Your task to perform on an android device: set the timer Image 0: 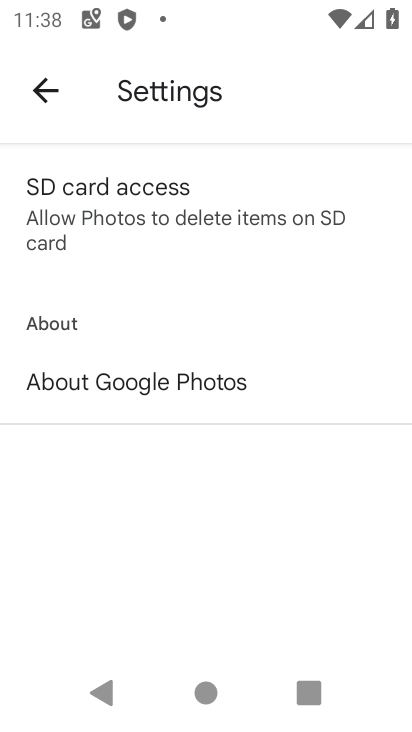
Step 0: press home button
Your task to perform on an android device: set the timer Image 1: 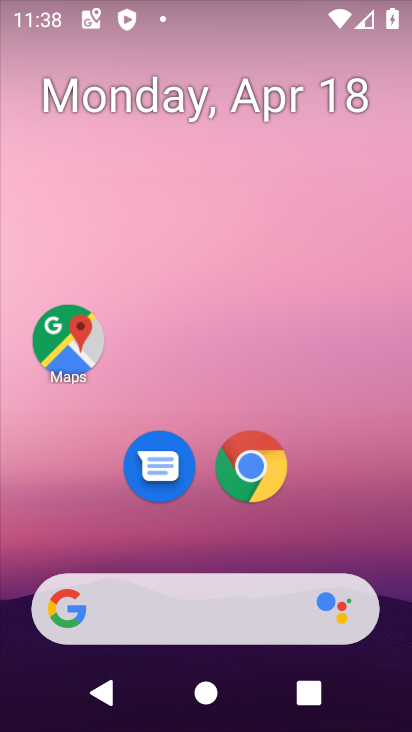
Step 1: drag from (296, 561) to (269, 271)
Your task to perform on an android device: set the timer Image 2: 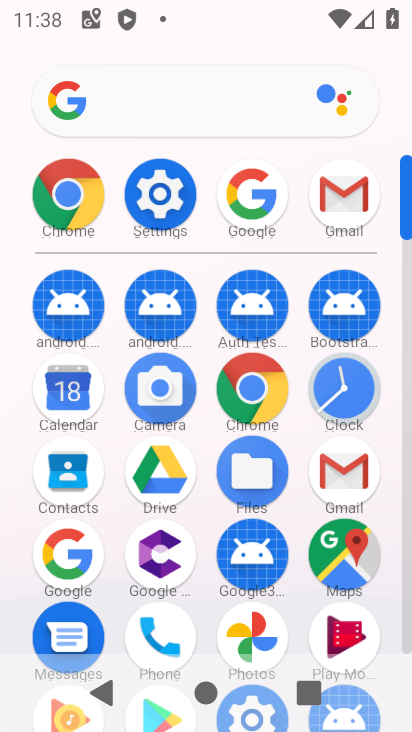
Step 2: click (350, 412)
Your task to perform on an android device: set the timer Image 3: 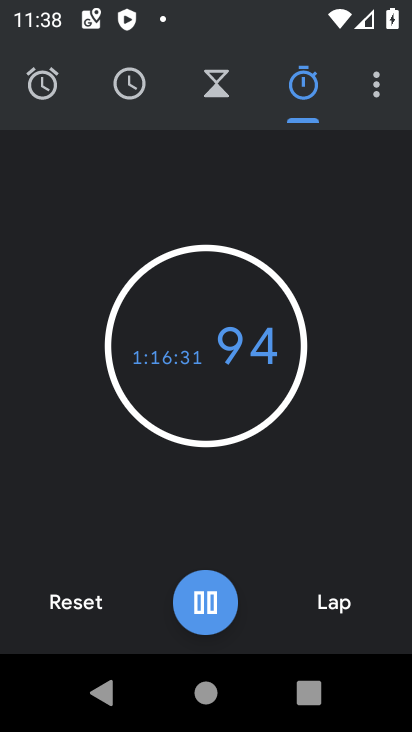
Step 3: click (207, 91)
Your task to perform on an android device: set the timer Image 4: 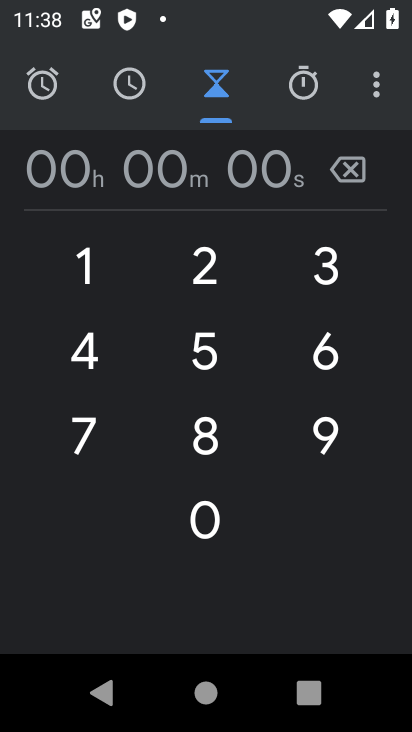
Step 4: click (198, 279)
Your task to perform on an android device: set the timer Image 5: 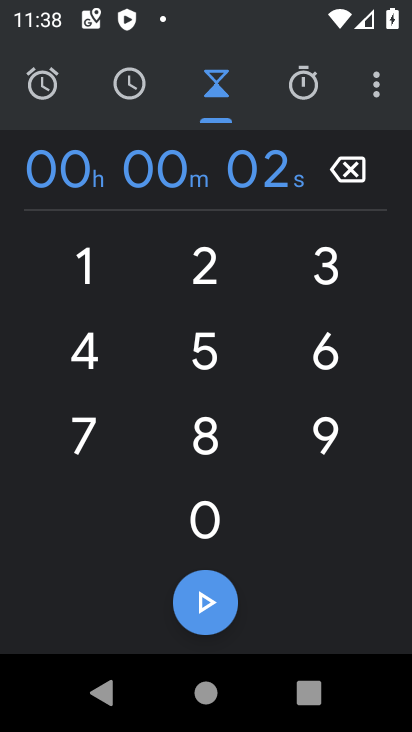
Step 5: click (195, 641)
Your task to perform on an android device: set the timer Image 6: 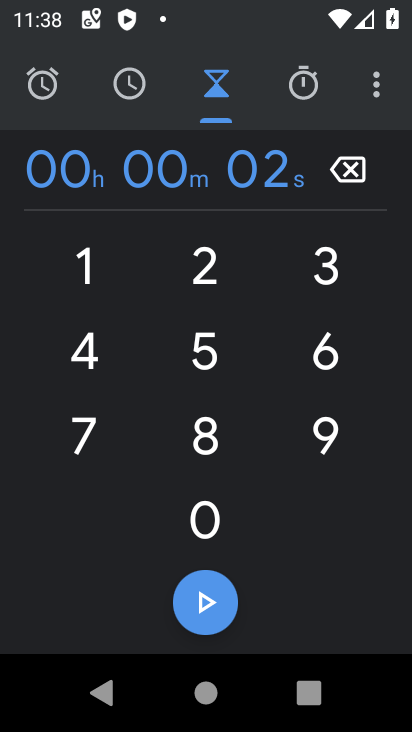
Step 6: click (213, 605)
Your task to perform on an android device: set the timer Image 7: 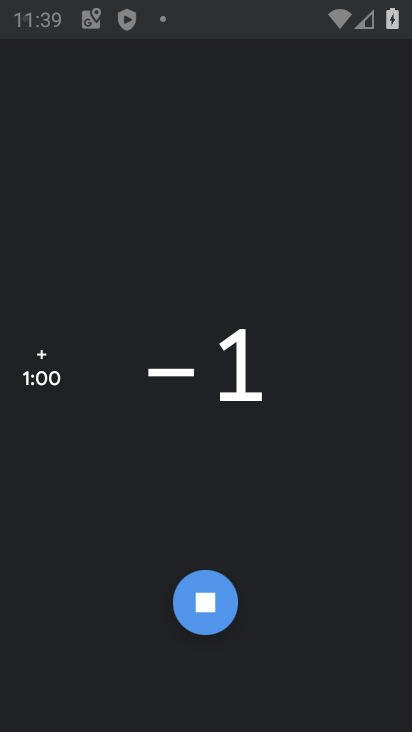
Step 7: task complete